Your task to perform on an android device: turn on translation in the chrome app Image 0: 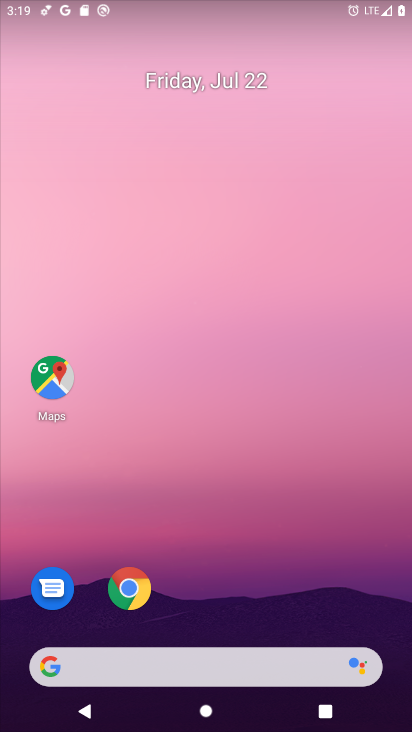
Step 0: drag from (312, 593) to (324, 0)
Your task to perform on an android device: turn on translation in the chrome app Image 1: 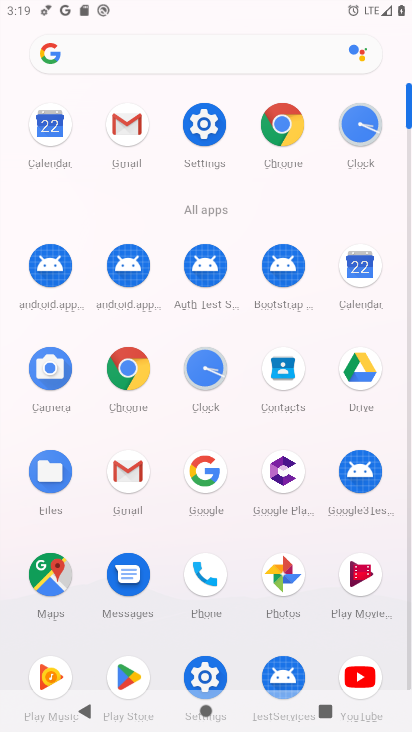
Step 1: click (136, 358)
Your task to perform on an android device: turn on translation in the chrome app Image 2: 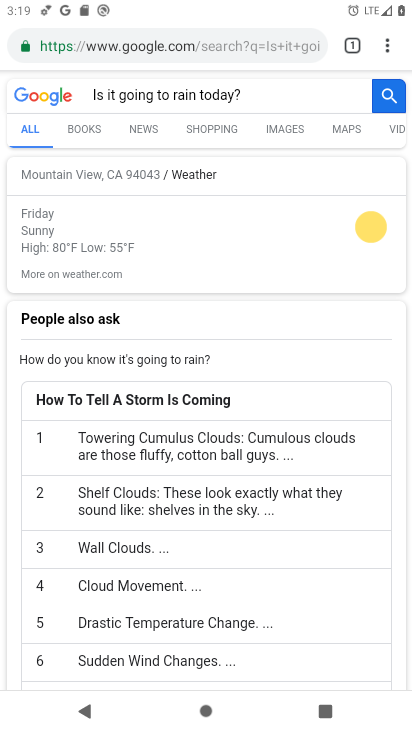
Step 2: drag from (384, 46) to (230, 490)
Your task to perform on an android device: turn on translation in the chrome app Image 3: 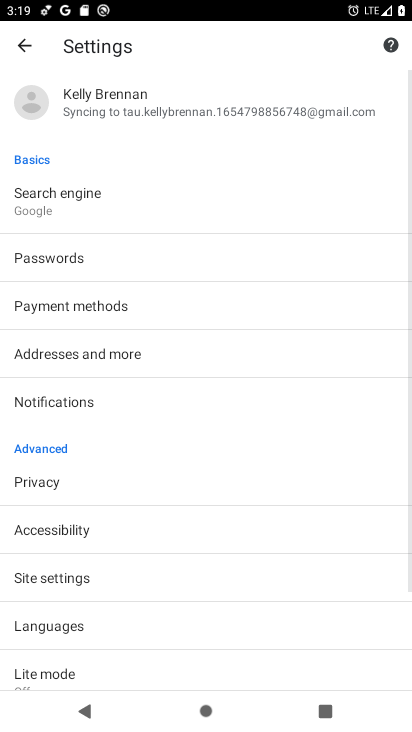
Step 3: drag from (292, 576) to (331, 96)
Your task to perform on an android device: turn on translation in the chrome app Image 4: 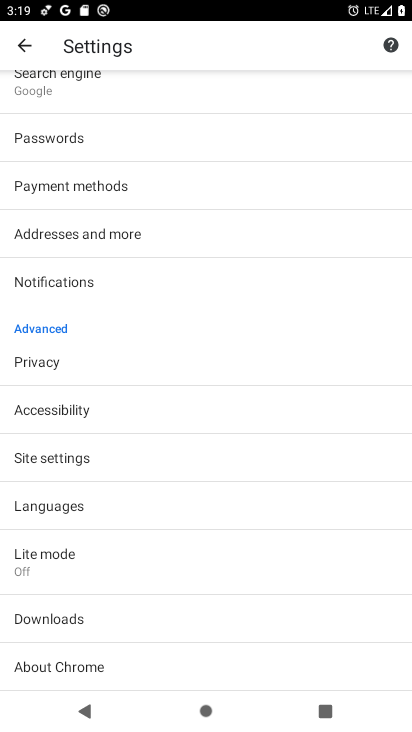
Step 4: click (61, 498)
Your task to perform on an android device: turn on translation in the chrome app Image 5: 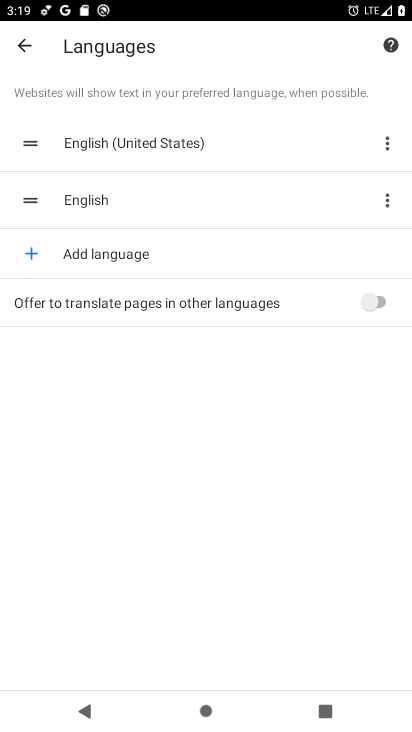
Step 5: click (333, 295)
Your task to perform on an android device: turn on translation in the chrome app Image 6: 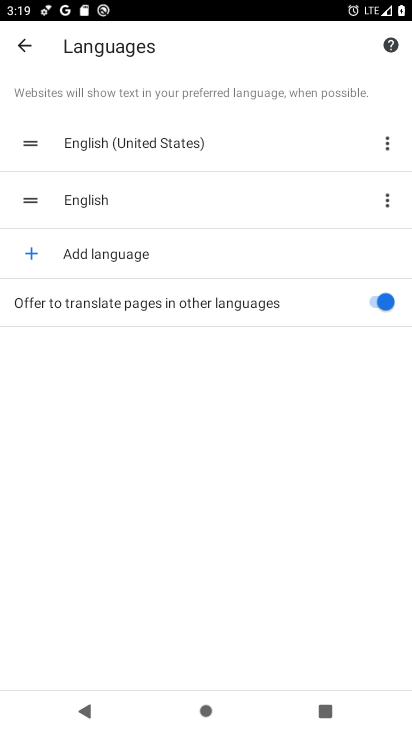
Step 6: task complete